Your task to perform on an android device: add a label to a message in the gmail app Image 0: 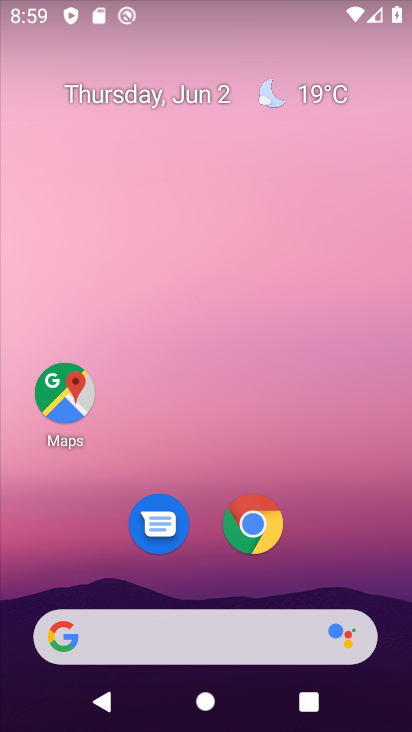
Step 0: drag from (256, 437) to (250, 0)
Your task to perform on an android device: add a label to a message in the gmail app Image 1: 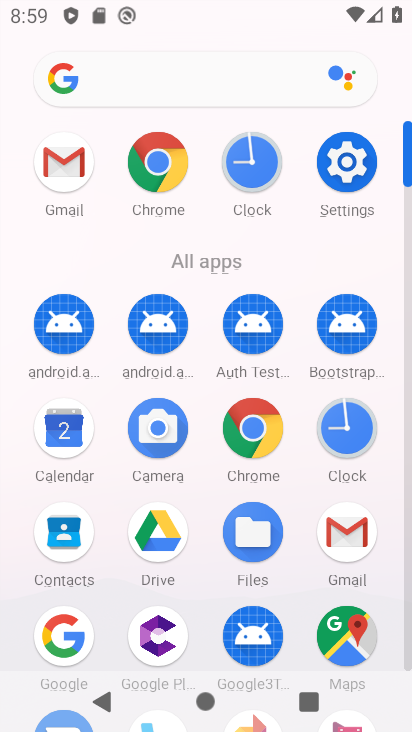
Step 1: click (71, 163)
Your task to perform on an android device: add a label to a message in the gmail app Image 2: 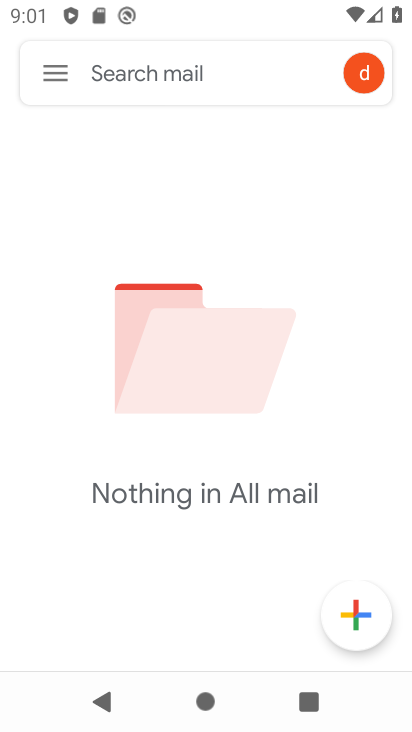
Step 2: task complete